Your task to perform on an android device: Open the Play Movies app and select the watchlist tab. Image 0: 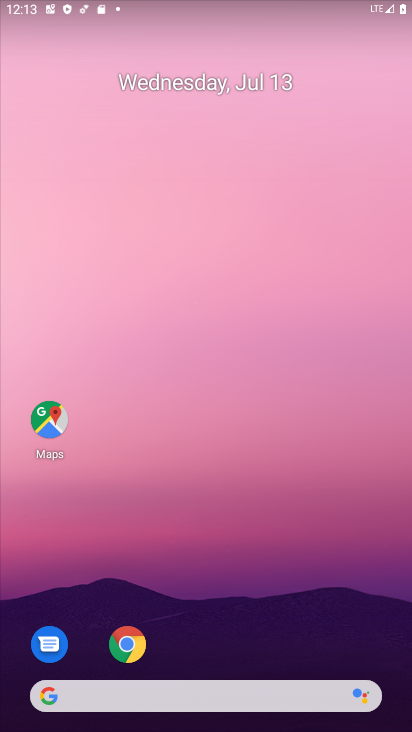
Step 0: drag from (205, 649) to (256, 100)
Your task to perform on an android device: Open the Play Movies app and select the watchlist tab. Image 1: 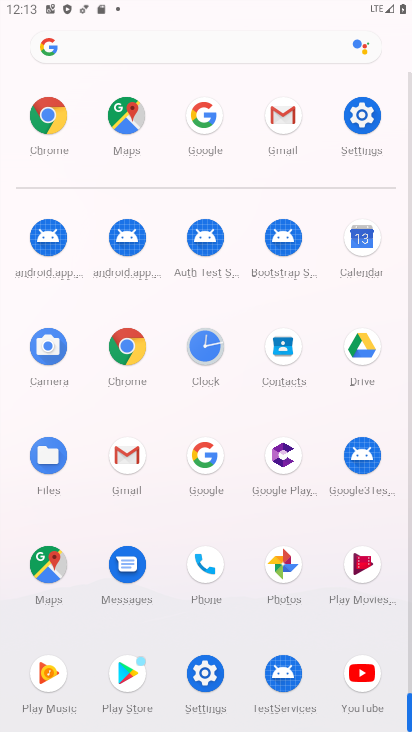
Step 1: click (359, 559)
Your task to perform on an android device: Open the Play Movies app and select the watchlist tab. Image 2: 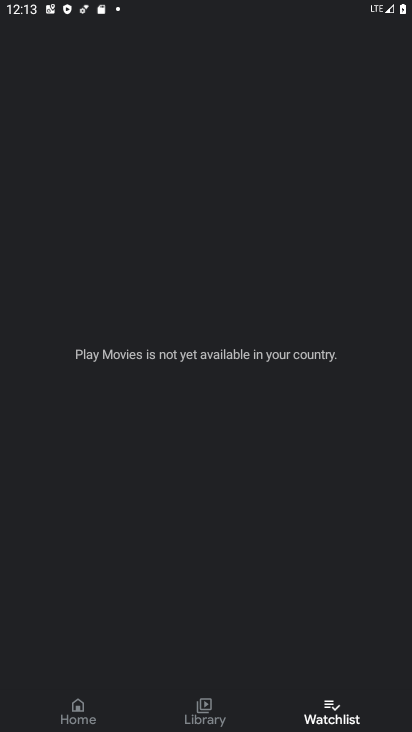
Step 2: task complete